Your task to perform on an android device: Show me popular videos on Youtube Image 0: 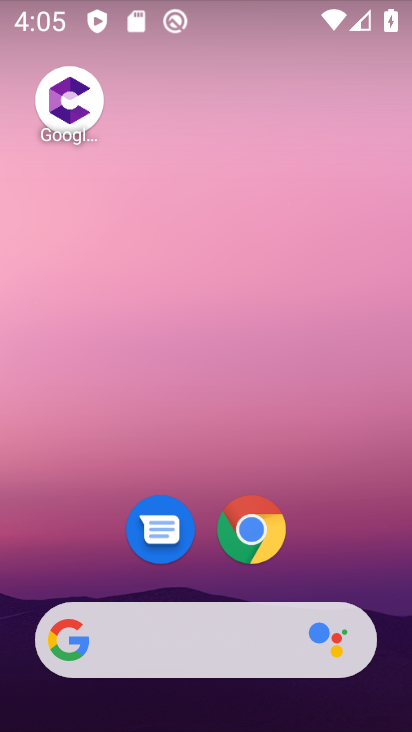
Step 0: drag from (234, 481) to (306, 4)
Your task to perform on an android device: Show me popular videos on Youtube Image 1: 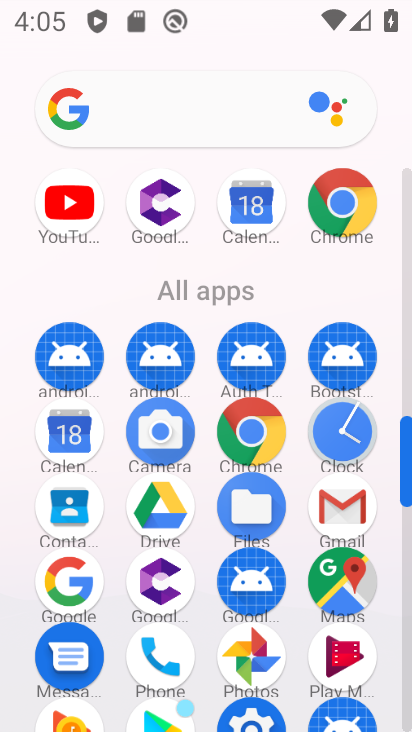
Step 1: click (65, 198)
Your task to perform on an android device: Show me popular videos on Youtube Image 2: 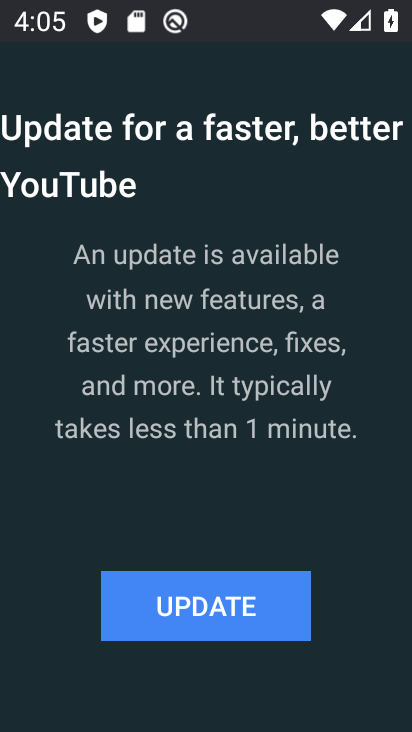
Step 2: click (159, 616)
Your task to perform on an android device: Show me popular videos on Youtube Image 3: 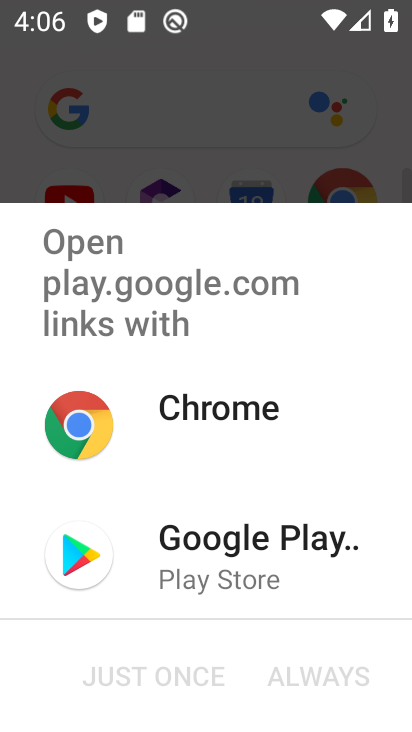
Step 3: click (239, 556)
Your task to perform on an android device: Show me popular videos on Youtube Image 4: 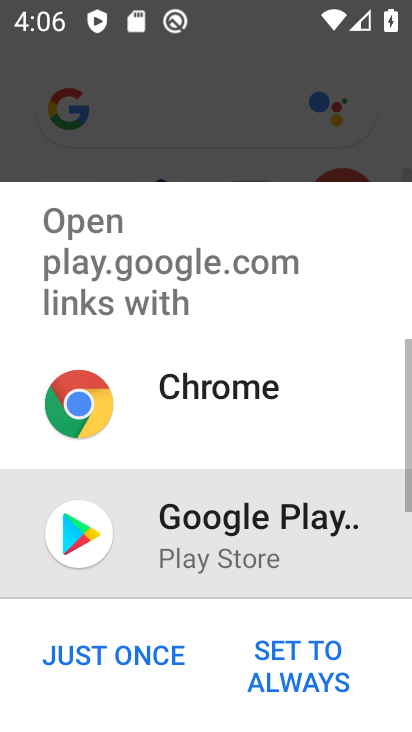
Step 4: click (152, 673)
Your task to perform on an android device: Show me popular videos on Youtube Image 5: 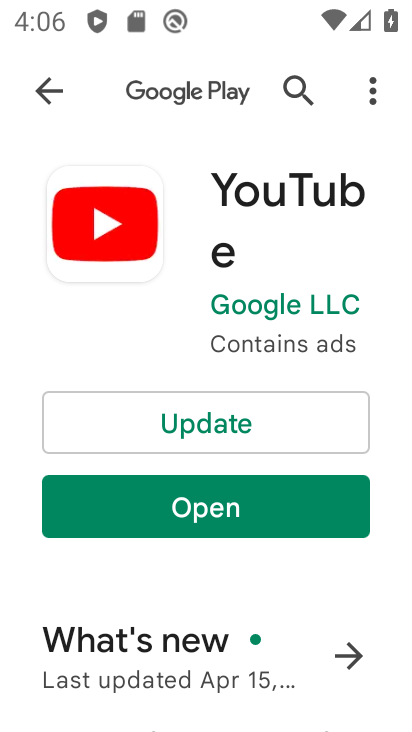
Step 5: click (188, 509)
Your task to perform on an android device: Show me popular videos on Youtube Image 6: 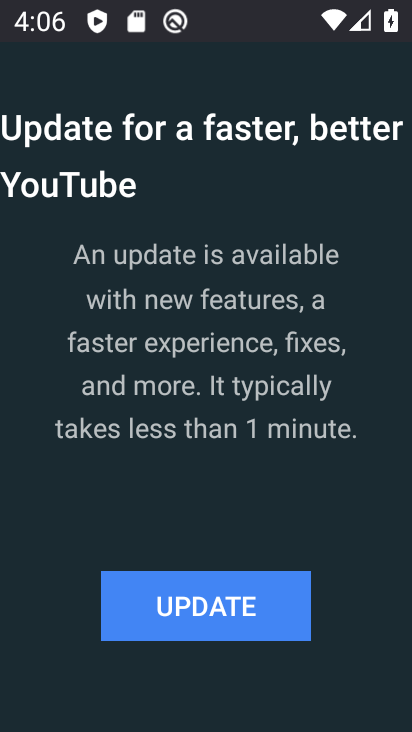
Step 6: click (171, 600)
Your task to perform on an android device: Show me popular videos on Youtube Image 7: 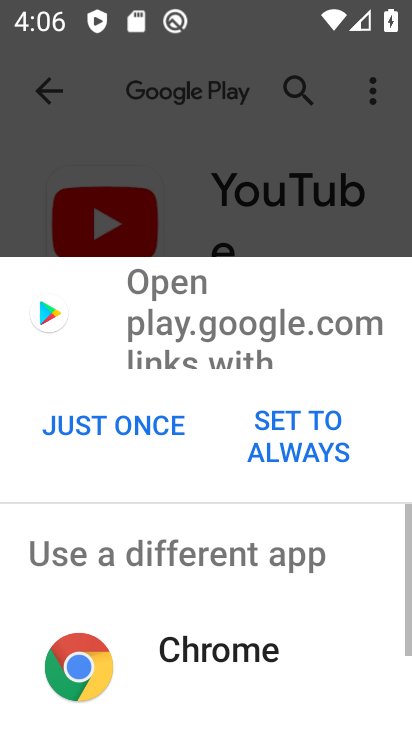
Step 7: click (143, 424)
Your task to perform on an android device: Show me popular videos on Youtube Image 8: 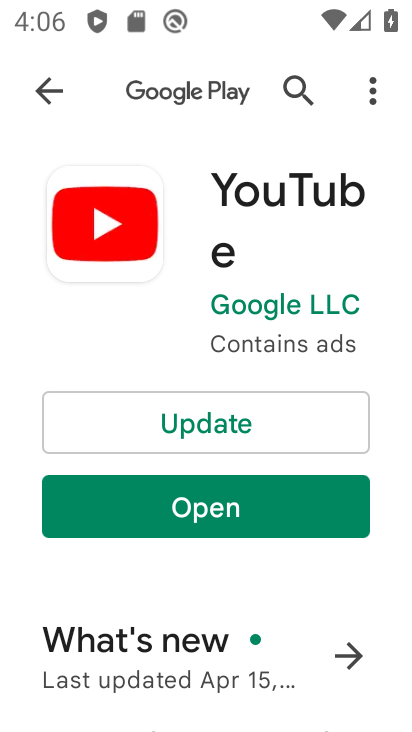
Step 8: click (198, 421)
Your task to perform on an android device: Show me popular videos on Youtube Image 9: 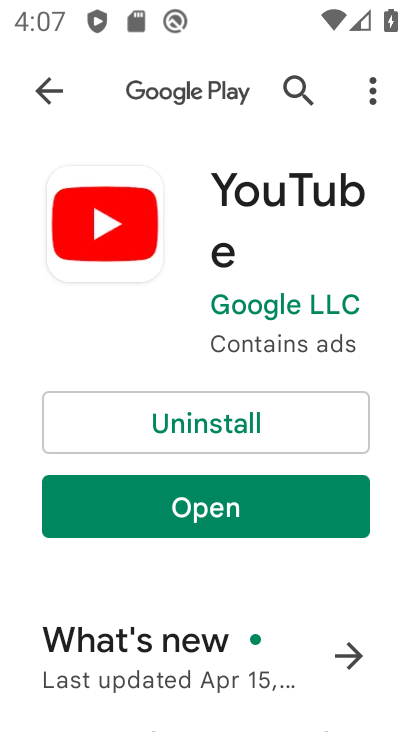
Step 9: click (191, 516)
Your task to perform on an android device: Show me popular videos on Youtube Image 10: 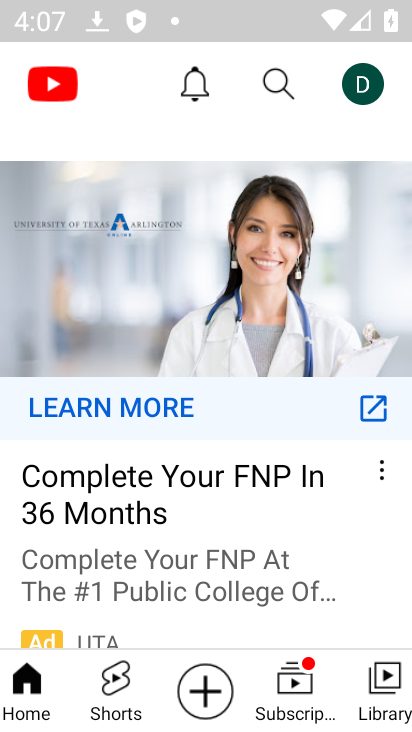
Step 10: drag from (205, 303) to (171, 689)
Your task to perform on an android device: Show me popular videos on Youtube Image 11: 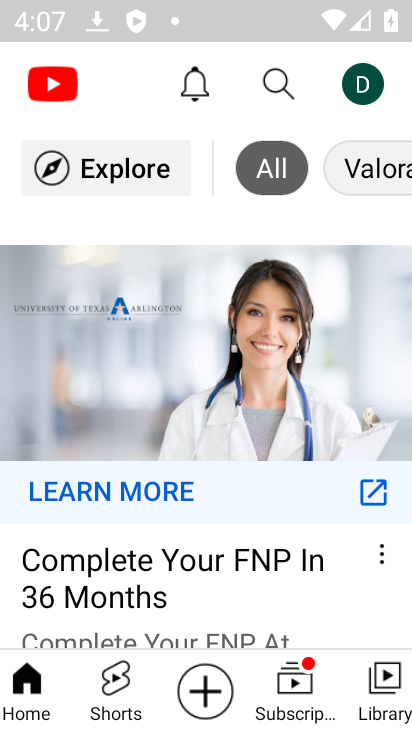
Step 11: drag from (295, 170) to (402, 171)
Your task to perform on an android device: Show me popular videos on Youtube Image 12: 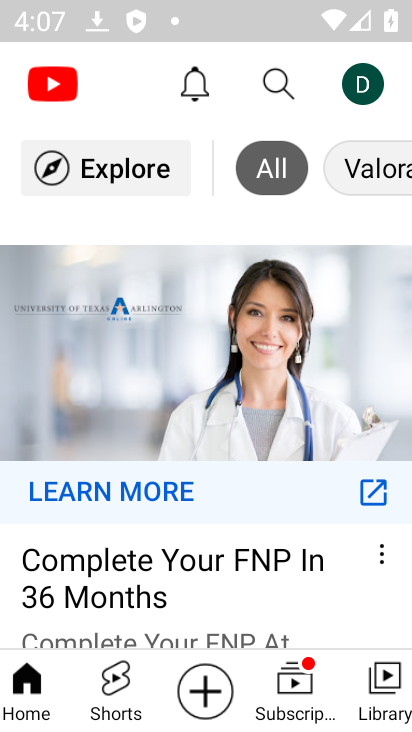
Step 12: click (104, 174)
Your task to perform on an android device: Show me popular videos on Youtube Image 13: 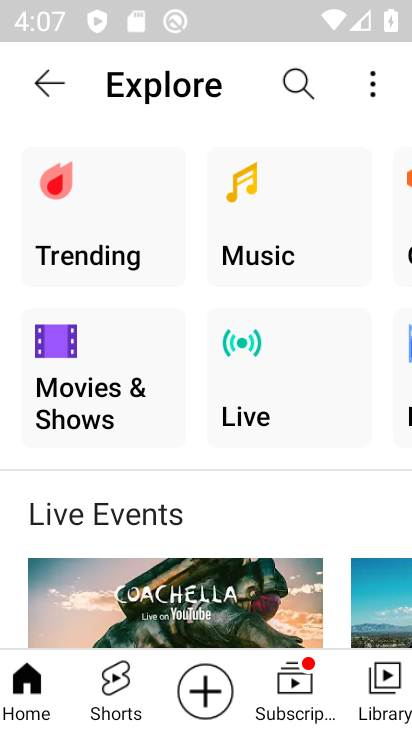
Step 13: click (94, 201)
Your task to perform on an android device: Show me popular videos on Youtube Image 14: 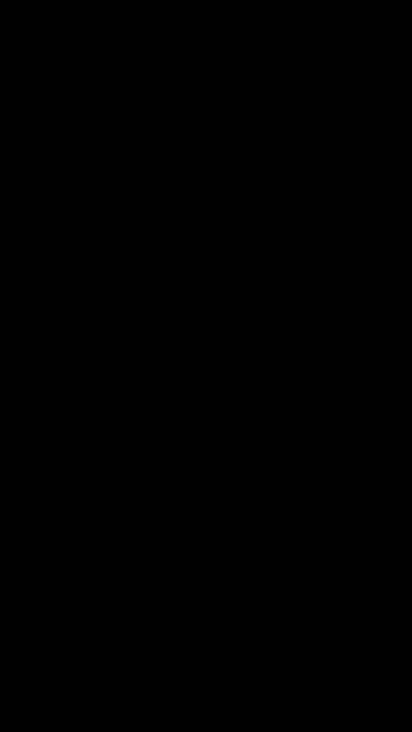
Step 14: task complete